Your task to perform on an android device: Open notification settings Image 0: 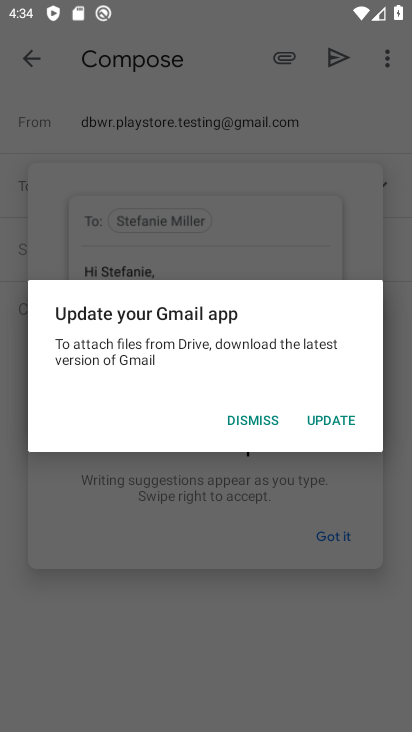
Step 0: press home button
Your task to perform on an android device: Open notification settings Image 1: 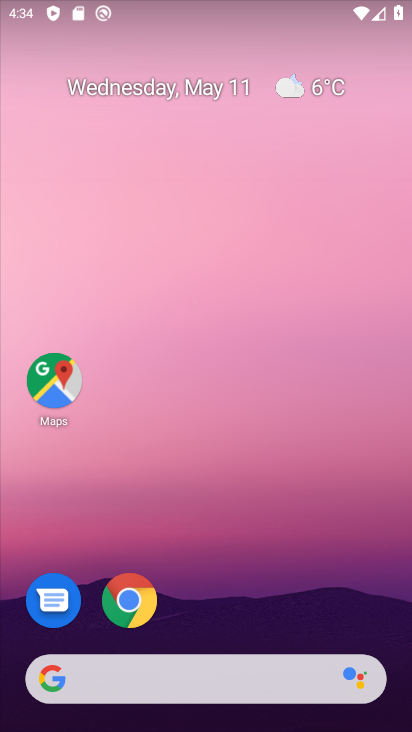
Step 1: drag from (244, 553) to (269, 108)
Your task to perform on an android device: Open notification settings Image 2: 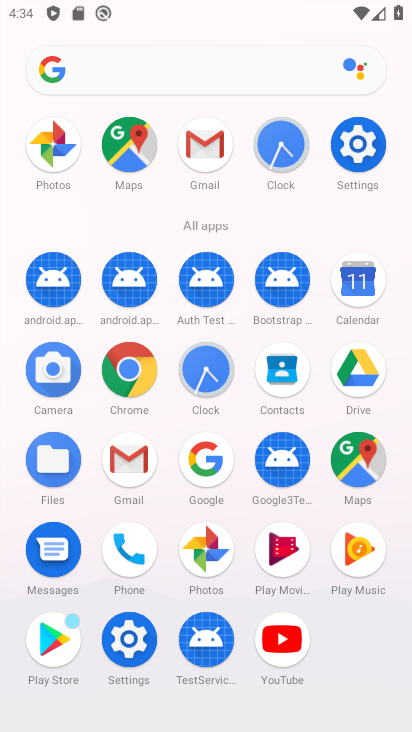
Step 2: click (363, 145)
Your task to perform on an android device: Open notification settings Image 3: 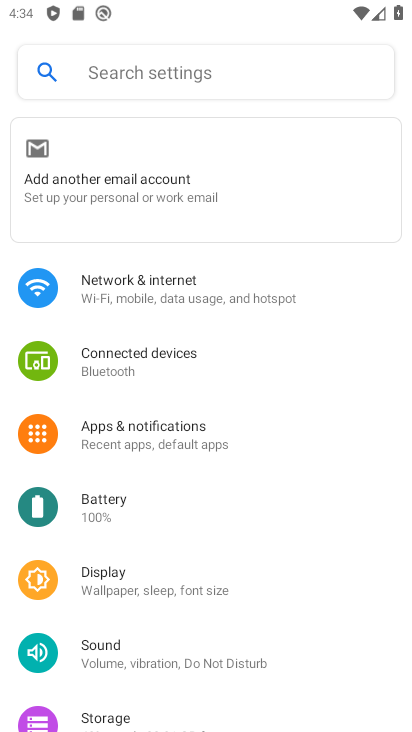
Step 3: click (159, 421)
Your task to perform on an android device: Open notification settings Image 4: 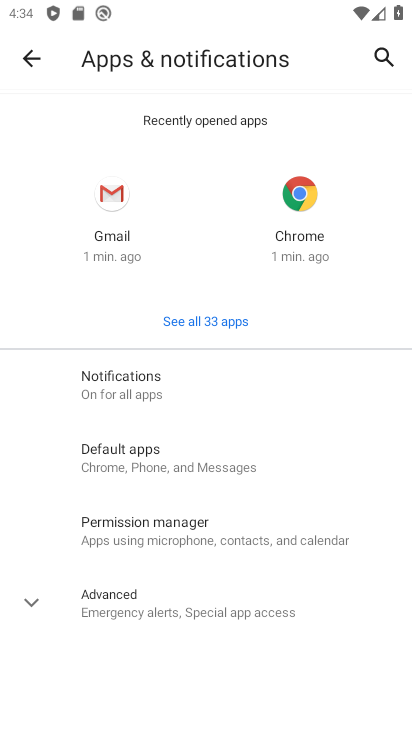
Step 4: click (136, 398)
Your task to perform on an android device: Open notification settings Image 5: 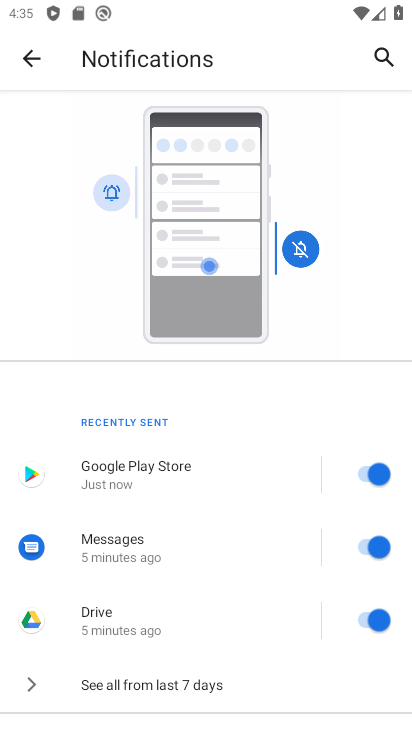
Step 5: task complete